Your task to perform on an android device: turn off translation in the chrome app Image 0: 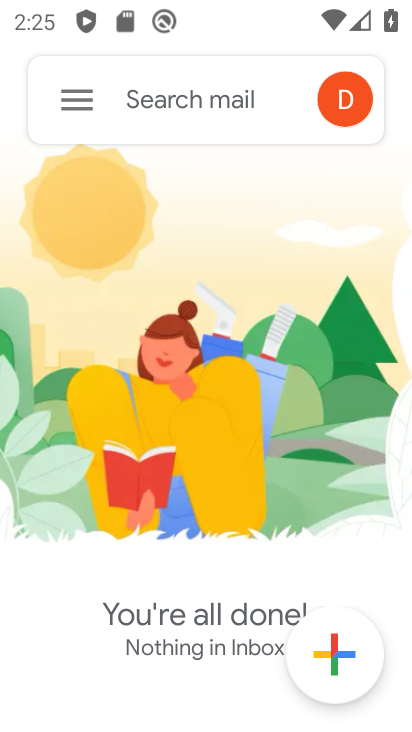
Step 0: press home button
Your task to perform on an android device: turn off translation in the chrome app Image 1: 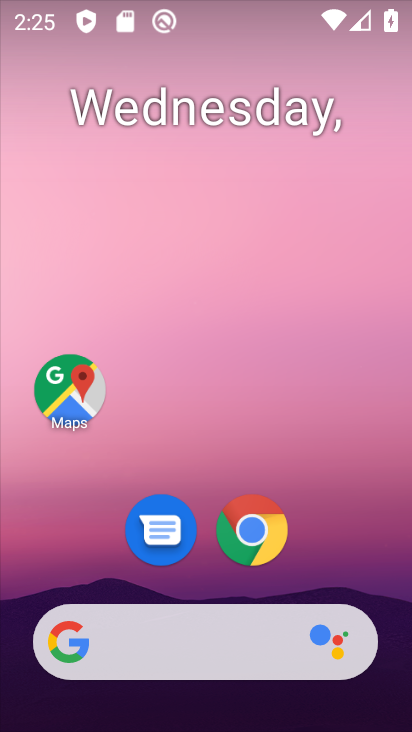
Step 1: click (261, 538)
Your task to perform on an android device: turn off translation in the chrome app Image 2: 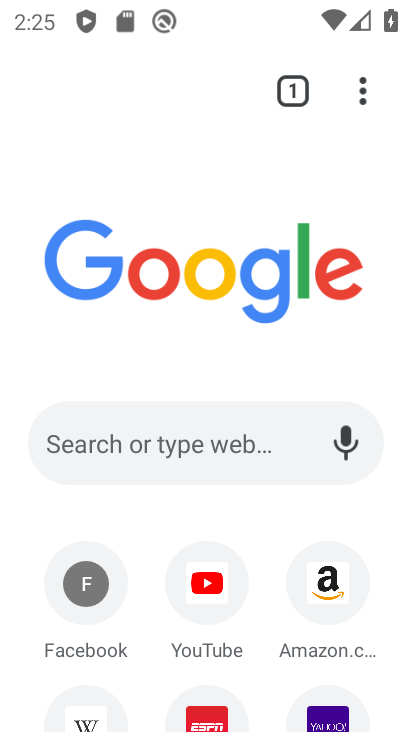
Step 2: drag from (373, 94) to (118, 556)
Your task to perform on an android device: turn off translation in the chrome app Image 3: 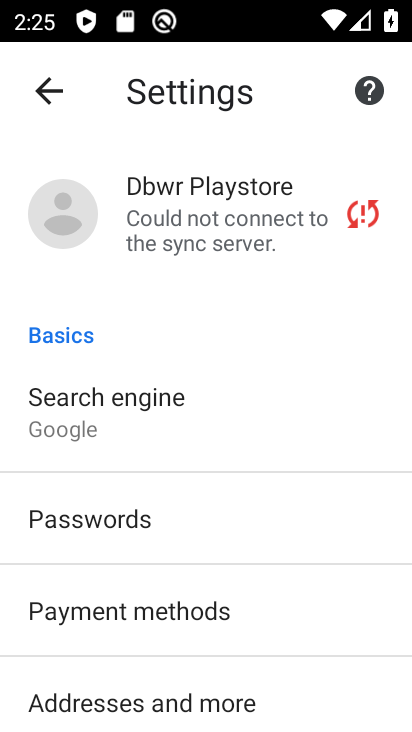
Step 3: drag from (201, 575) to (159, 214)
Your task to perform on an android device: turn off translation in the chrome app Image 4: 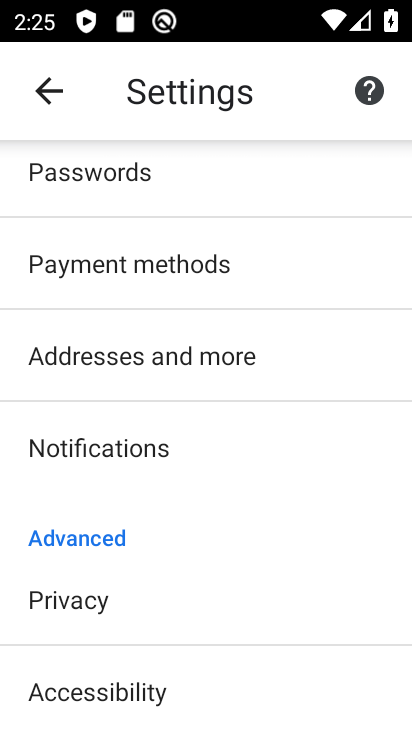
Step 4: drag from (164, 610) to (143, 201)
Your task to perform on an android device: turn off translation in the chrome app Image 5: 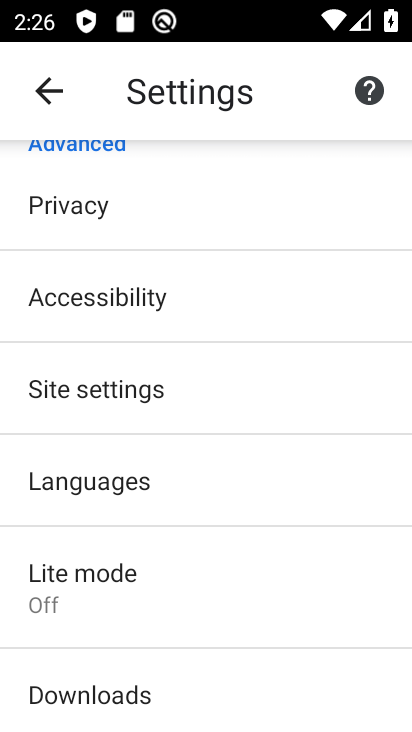
Step 5: click (111, 498)
Your task to perform on an android device: turn off translation in the chrome app Image 6: 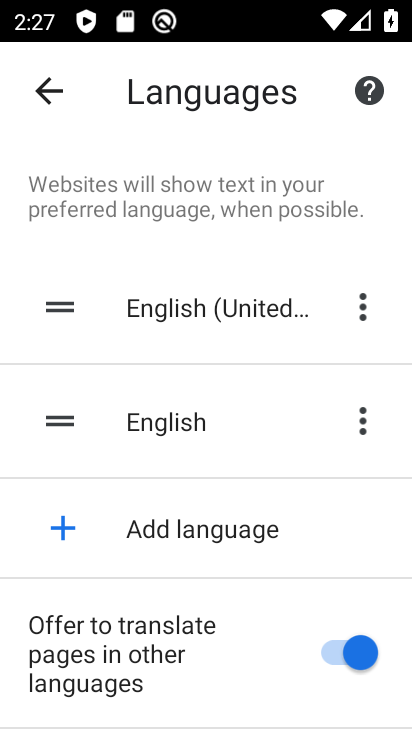
Step 6: click (365, 634)
Your task to perform on an android device: turn off translation in the chrome app Image 7: 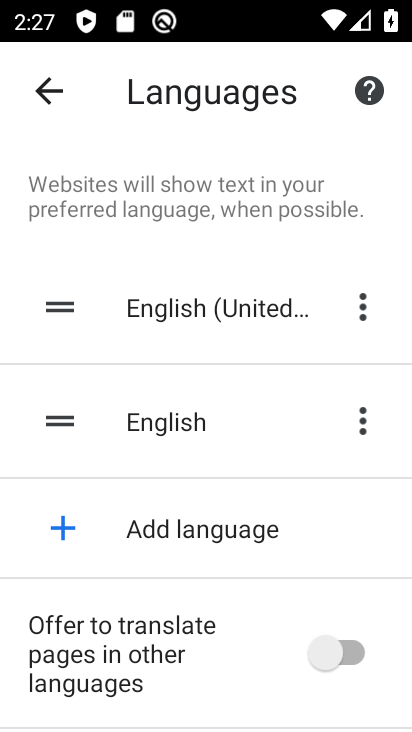
Step 7: task complete